Your task to perform on an android device: toggle data saver in the chrome app Image 0: 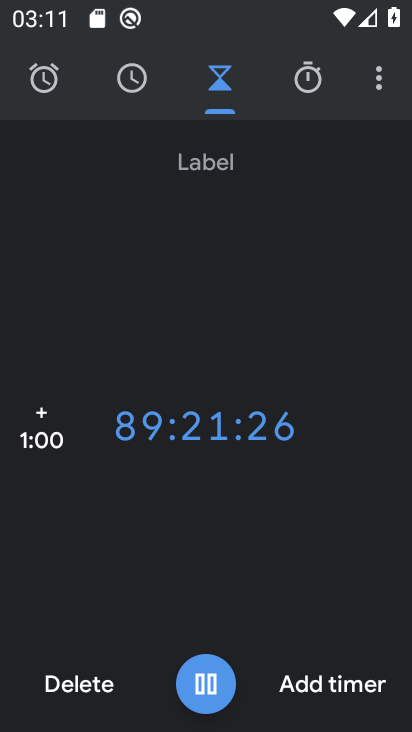
Step 0: press home button
Your task to perform on an android device: toggle data saver in the chrome app Image 1: 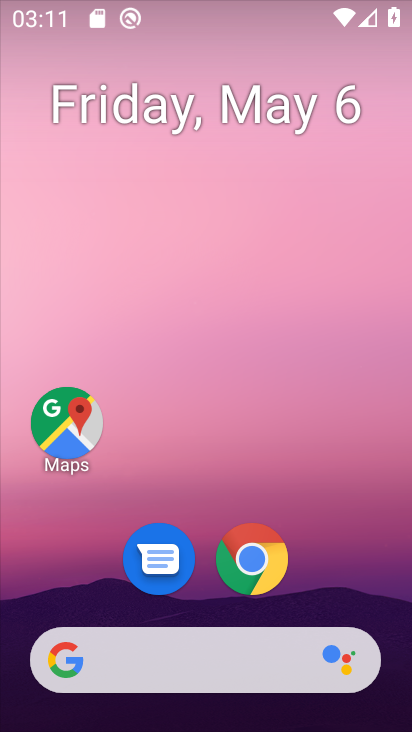
Step 1: drag from (357, 697) to (359, 140)
Your task to perform on an android device: toggle data saver in the chrome app Image 2: 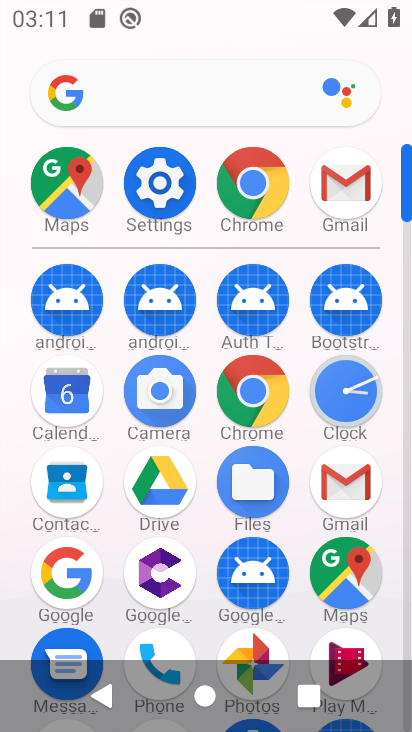
Step 2: click (259, 388)
Your task to perform on an android device: toggle data saver in the chrome app Image 3: 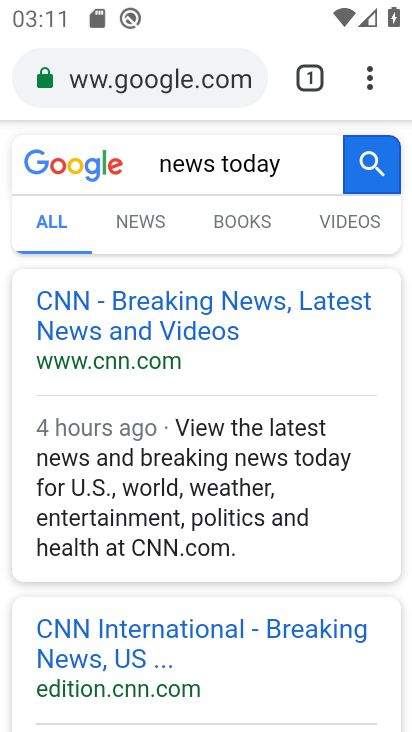
Step 3: drag from (370, 68) to (176, 628)
Your task to perform on an android device: toggle data saver in the chrome app Image 4: 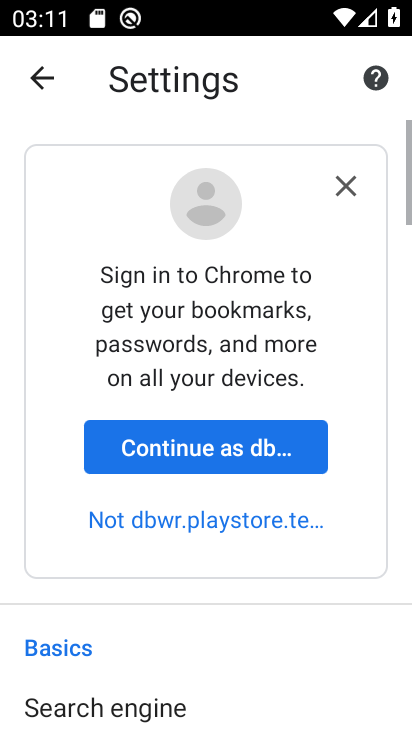
Step 4: drag from (173, 654) to (238, 99)
Your task to perform on an android device: toggle data saver in the chrome app Image 5: 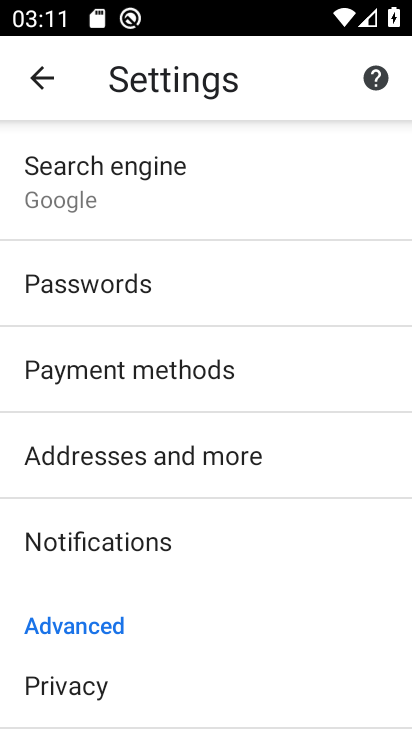
Step 5: drag from (173, 688) to (154, 135)
Your task to perform on an android device: toggle data saver in the chrome app Image 6: 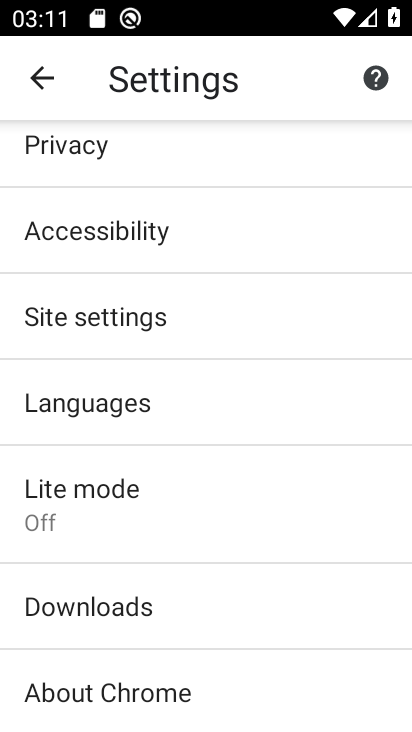
Step 6: drag from (178, 670) to (213, 274)
Your task to perform on an android device: toggle data saver in the chrome app Image 7: 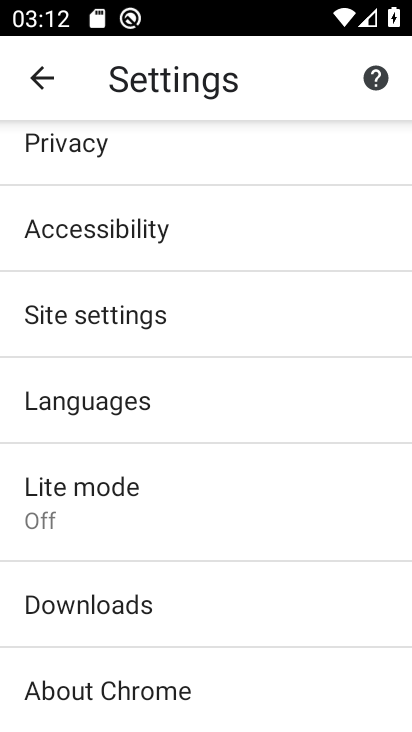
Step 7: click (117, 525)
Your task to perform on an android device: toggle data saver in the chrome app Image 8: 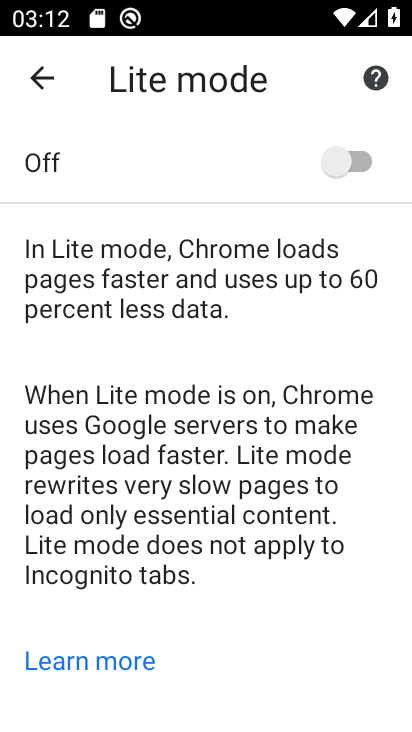
Step 8: click (354, 163)
Your task to perform on an android device: toggle data saver in the chrome app Image 9: 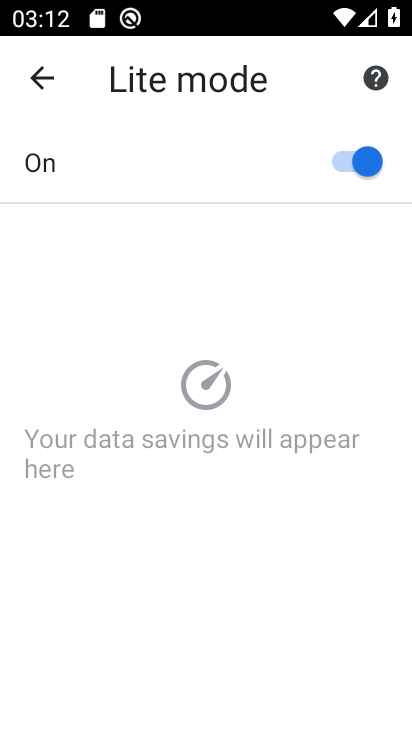
Step 9: task complete